Your task to perform on an android device: Toggle the flashlight Image 0: 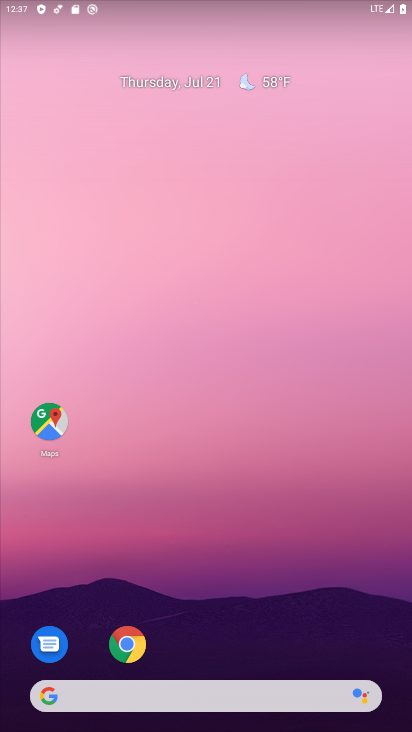
Step 0: drag from (256, 0) to (274, 342)
Your task to perform on an android device: Toggle the flashlight Image 1: 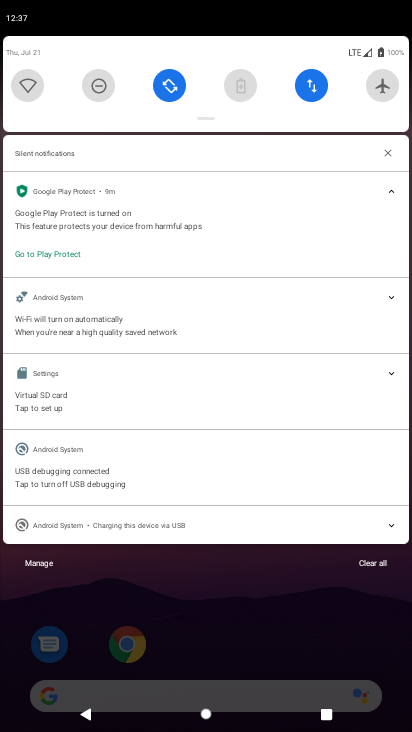
Step 1: task complete